Your task to perform on an android device: turn off location history Image 0: 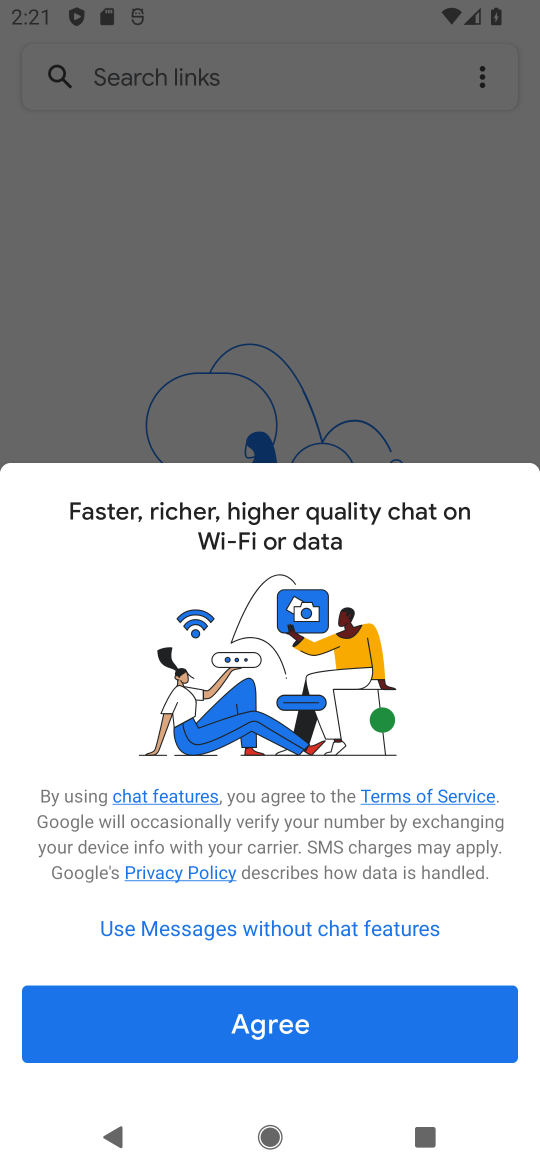
Step 0: press home button
Your task to perform on an android device: turn off location history Image 1: 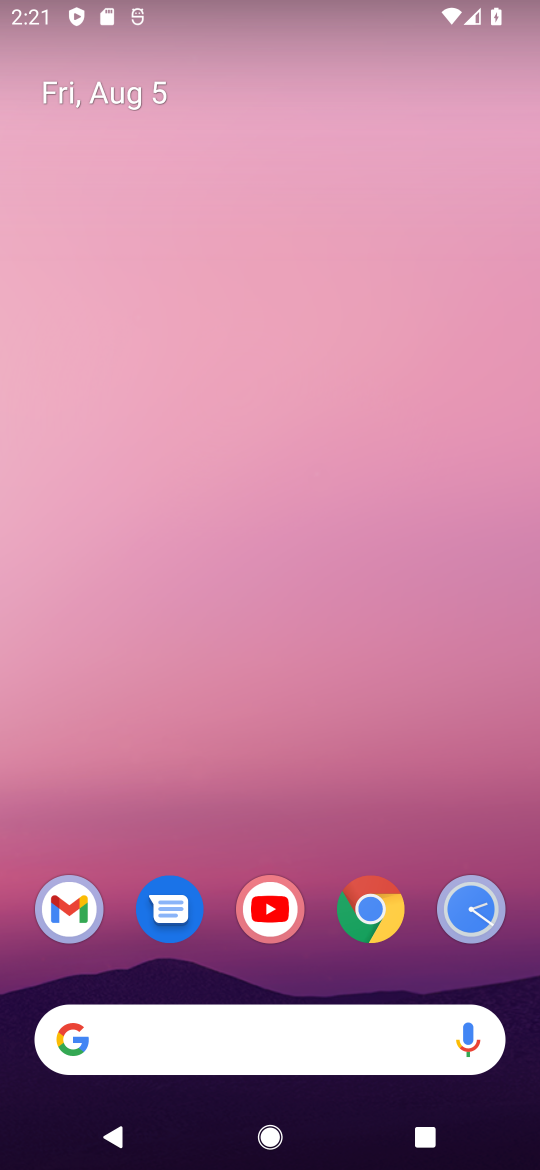
Step 1: drag from (324, 967) to (309, 192)
Your task to perform on an android device: turn off location history Image 2: 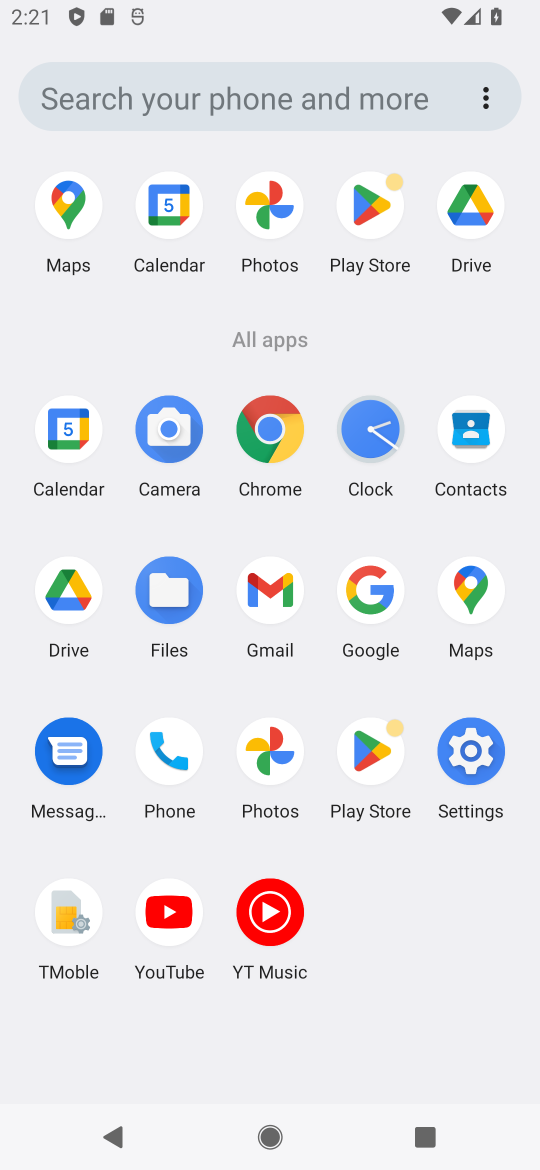
Step 2: click (488, 738)
Your task to perform on an android device: turn off location history Image 3: 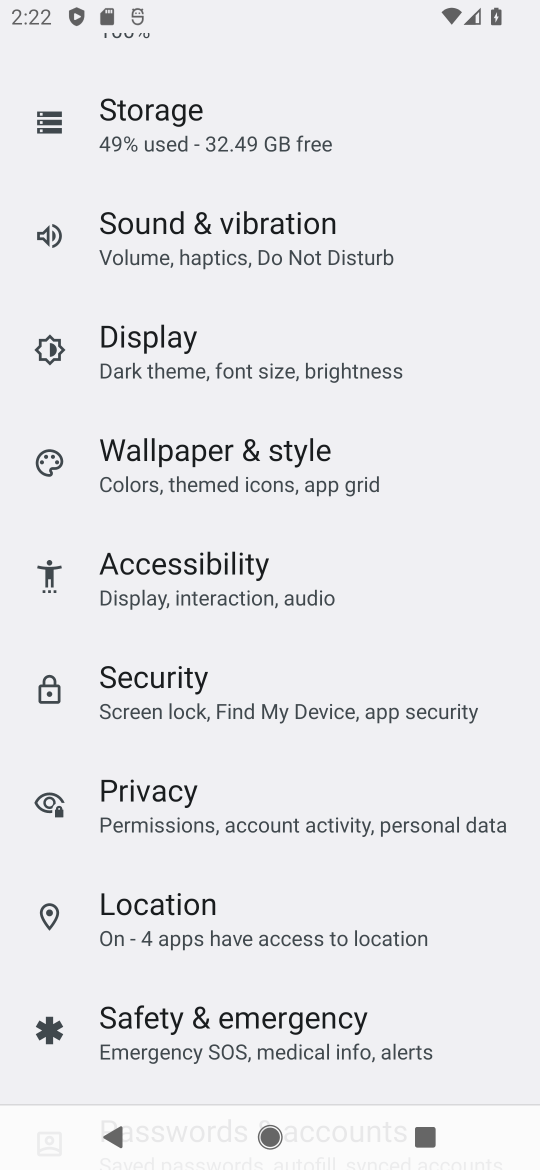
Step 3: click (260, 912)
Your task to perform on an android device: turn off location history Image 4: 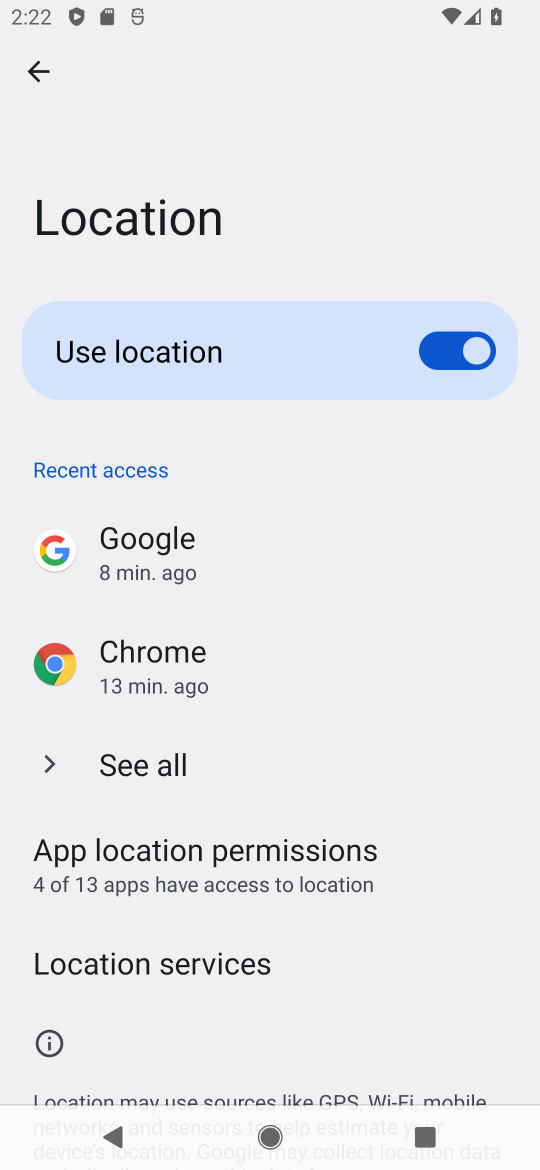
Step 4: task complete